Your task to perform on an android device: remove spam from my inbox in the gmail app Image 0: 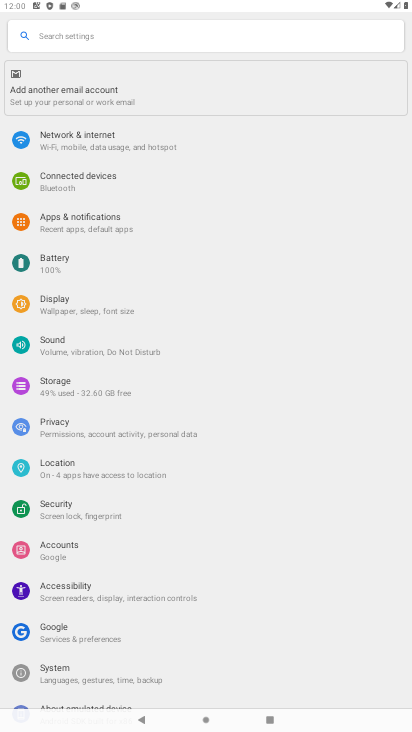
Step 0: press home button
Your task to perform on an android device: remove spam from my inbox in the gmail app Image 1: 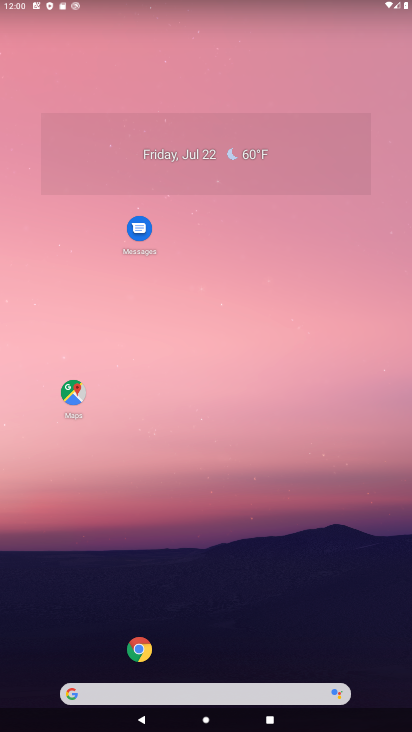
Step 1: drag from (64, 545) to (88, 164)
Your task to perform on an android device: remove spam from my inbox in the gmail app Image 2: 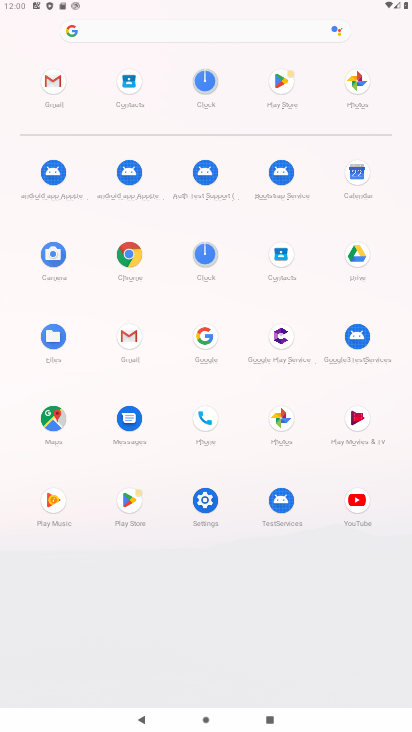
Step 2: click (119, 357)
Your task to perform on an android device: remove spam from my inbox in the gmail app Image 3: 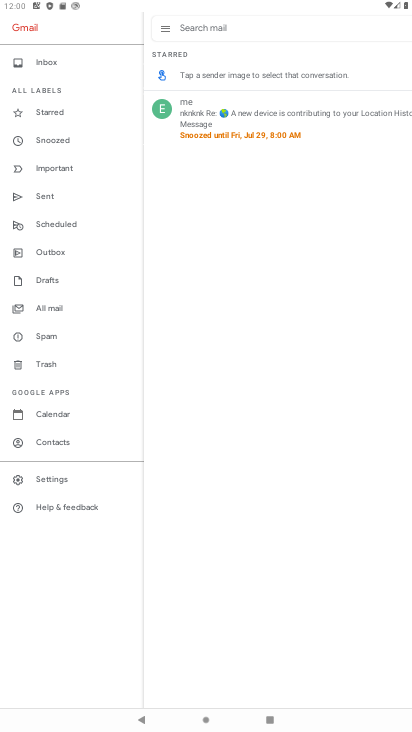
Step 3: click (28, 329)
Your task to perform on an android device: remove spam from my inbox in the gmail app Image 4: 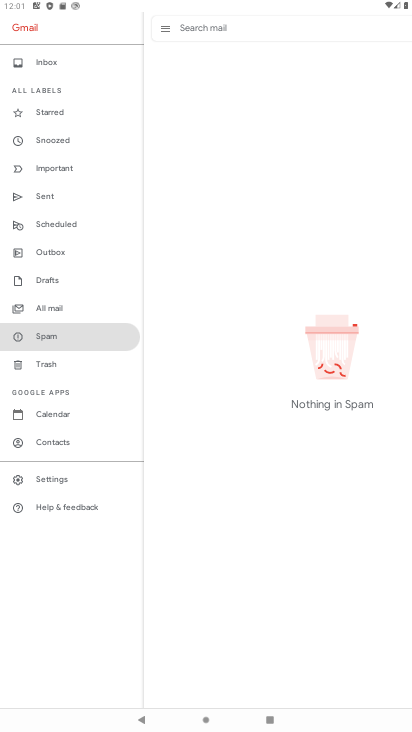
Step 4: task complete